Your task to perform on an android device: turn off data saver in the chrome app Image 0: 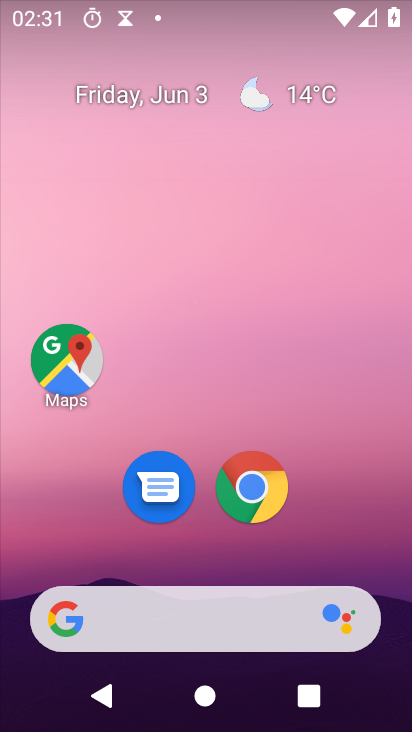
Step 0: click (291, 491)
Your task to perform on an android device: turn off data saver in the chrome app Image 1: 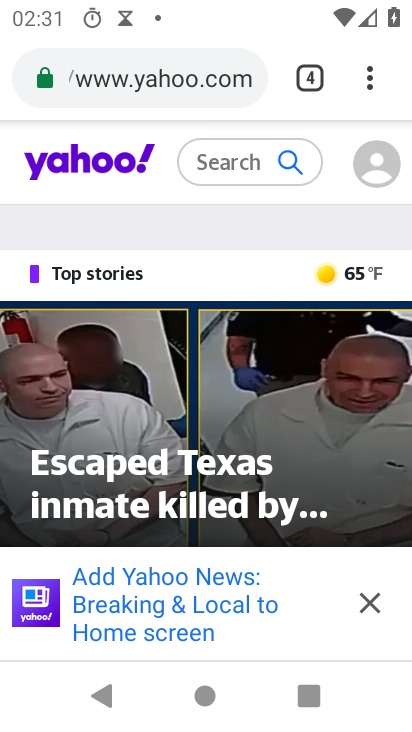
Step 1: click (377, 67)
Your task to perform on an android device: turn off data saver in the chrome app Image 2: 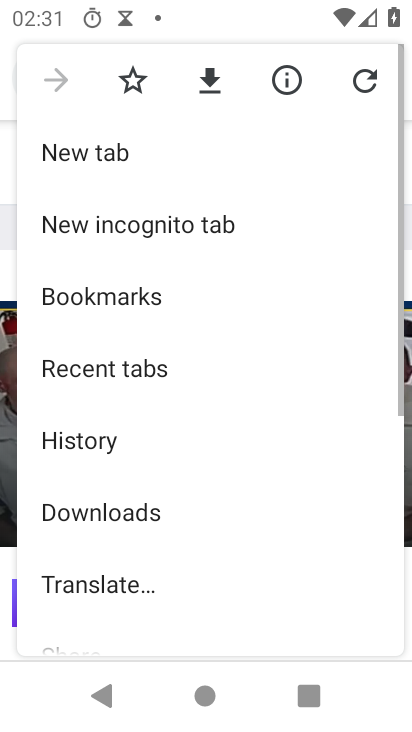
Step 2: drag from (228, 556) to (234, 62)
Your task to perform on an android device: turn off data saver in the chrome app Image 3: 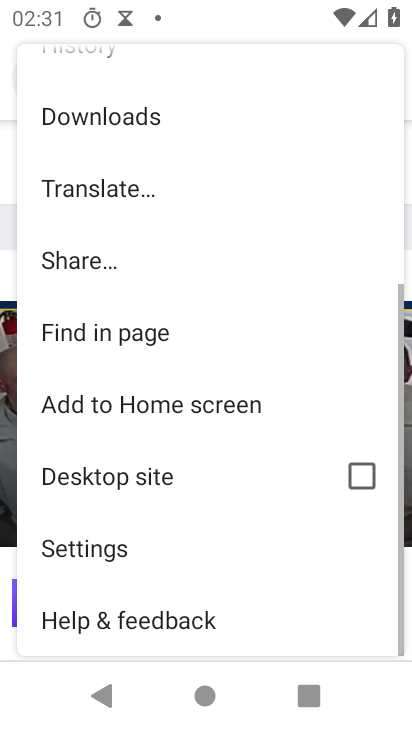
Step 3: click (143, 559)
Your task to perform on an android device: turn off data saver in the chrome app Image 4: 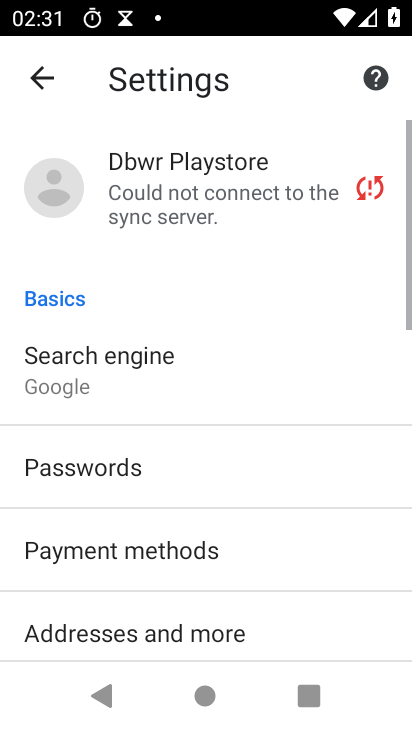
Step 4: drag from (177, 448) to (197, 104)
Your task to perform on an android device: turn off data saver in the chrome app Image 5: 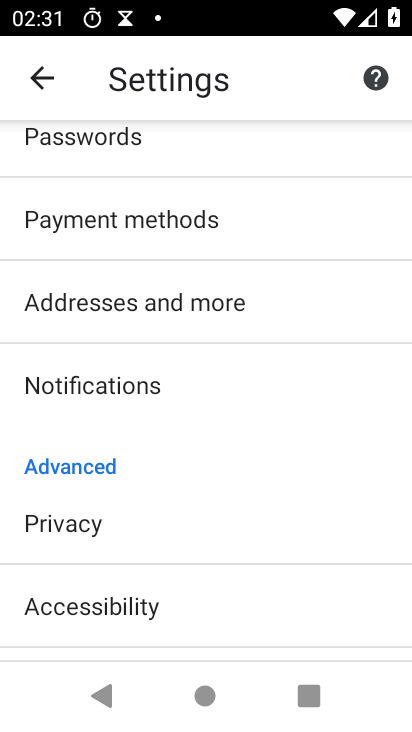
Step 5: drag from (163, 606) to (212, 140)
Your task to perform on an android device: turn off data saver in the chrome app Image 6: 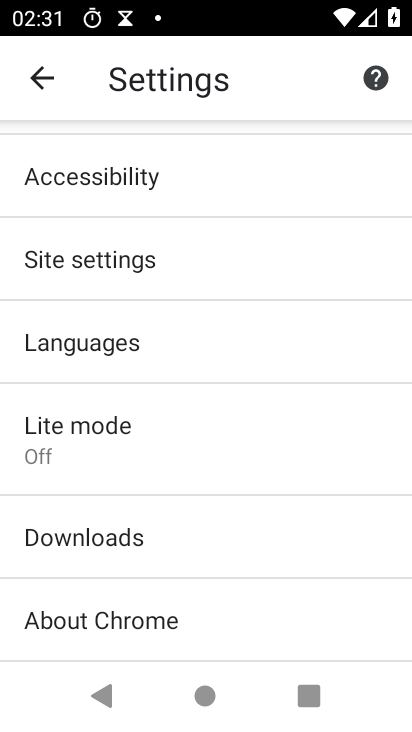
Step 6: click (164, 442)
Your task to perform on an android device: turn off data saver in the chrome app Image 7: 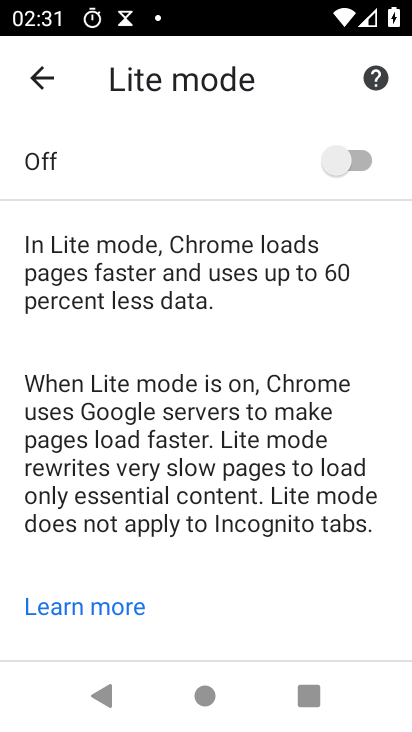
Step 7: task complete